Your task to perform on an android device: turn notification dots on Image 0: 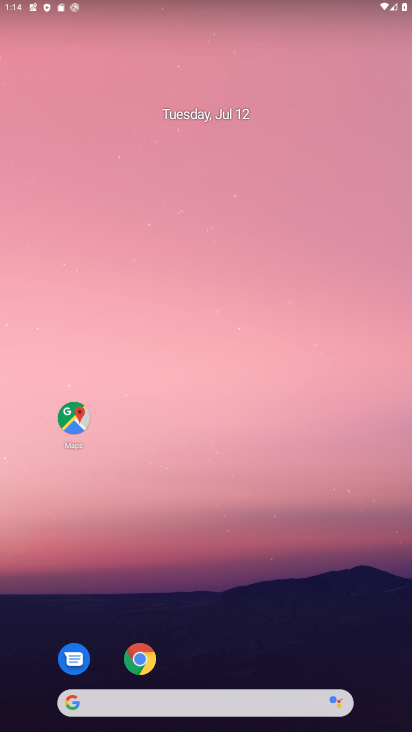
Step 0: drag from (190, 684) to (309, 160)
Your task to perform on an android device: turn notification dots on Image 1: 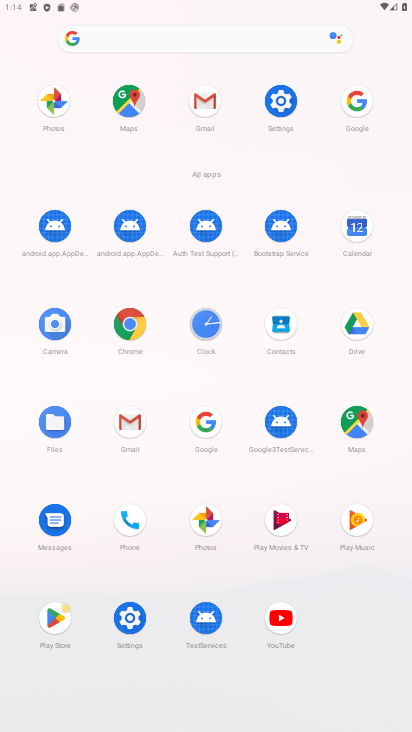
Step 1: click (133, 617)
Your task to perform on an android device: turn notification dots on Image 2: 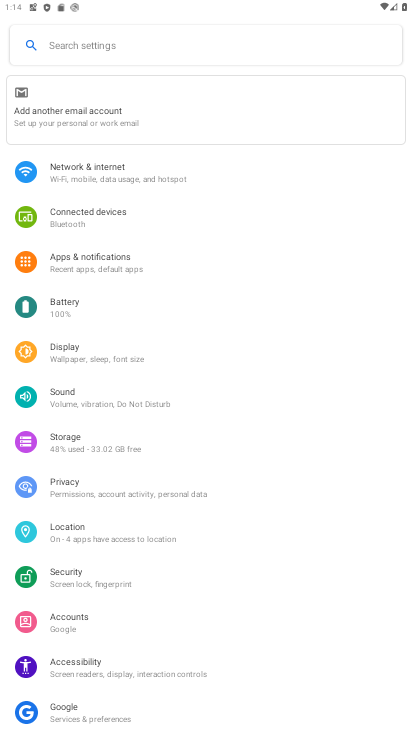
Step 2: click (129, 278)
Your task to perform on an android device: turn notification dots on Image 3: 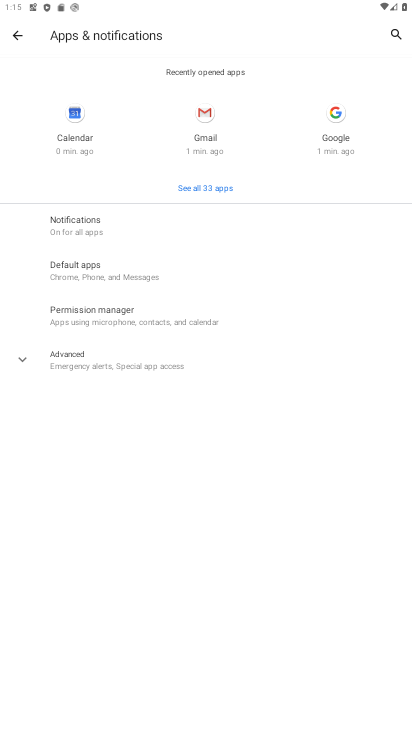
Step 3: click (135, 232)
Your task to perform on an android device: turn notification dots on Image 4: 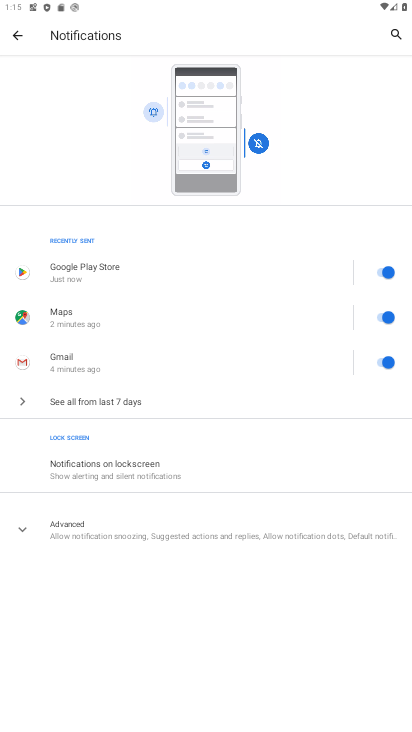
Step 4: click (179, 535)
Your task to perform on an android device: turn notification dots on Image 5: 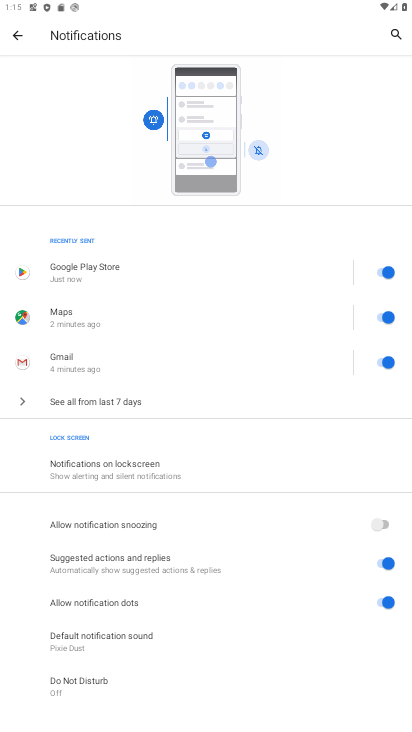
Step 5: task complete